Your task to perform on an android device: make emails show in primary in the gmail app Image 0: 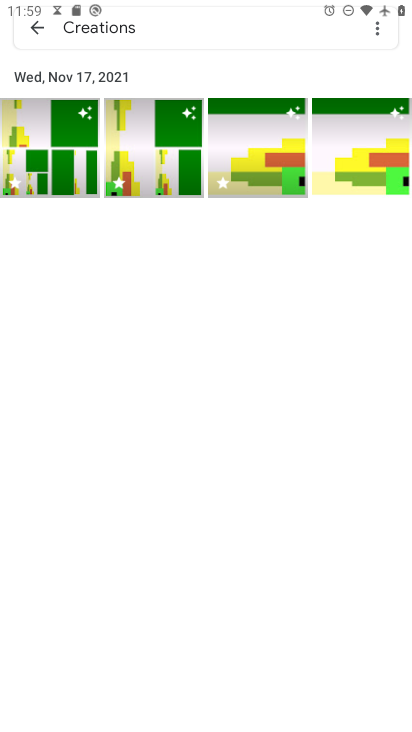
Step 0: press home button
Your task to perform on an android device: make emails show in primary in the gmail app Image 1: 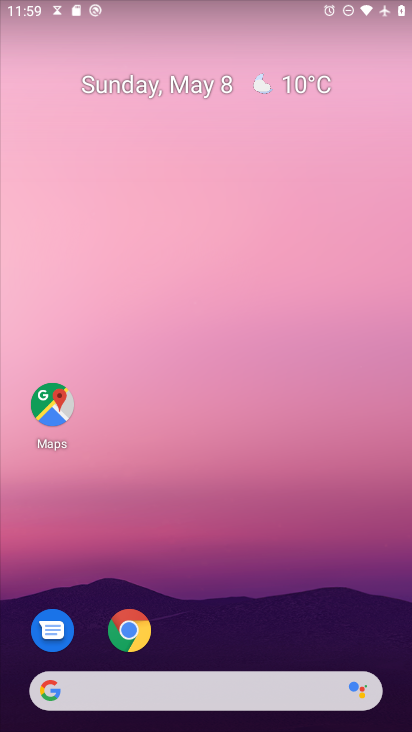
Step 1: drag from (177, 672) to (359, 66)
Your task to perform on an android device: make emails show in primary in the gmail app Image 2: 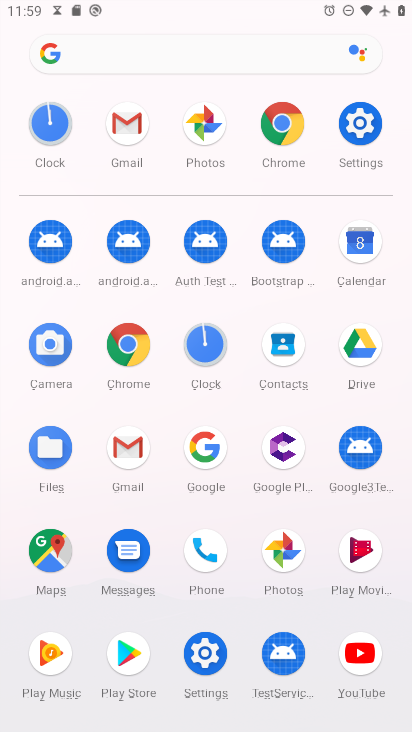
Step 2: click (121, 132)
Your task to perform on an android device: make emails show in primary in the gmail app Image 3: 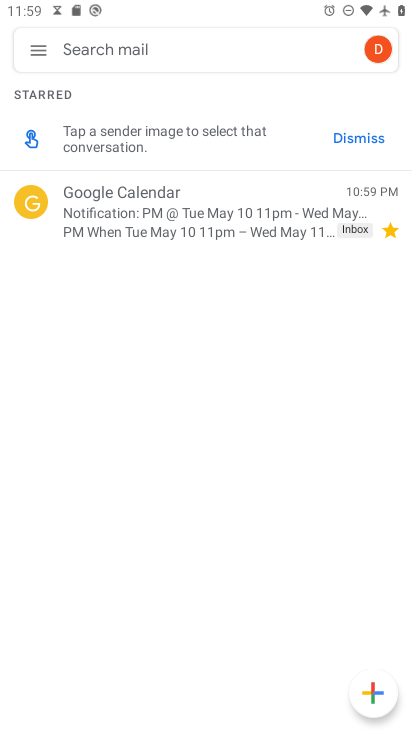
Step 3: click (42, 57)
Your task to perform on an android device: make emails show in primary in the gmail app Image 4: 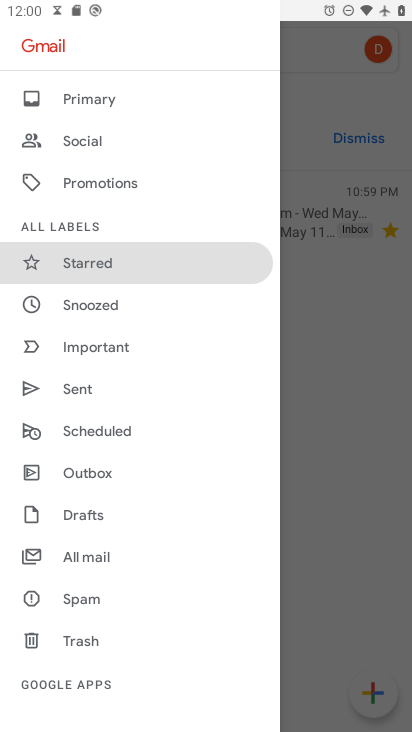
Step 4: drag from (116, 660) to (151, 311)
Your task to perform on an android device: make emails show in primary in the gmail app Image 5: 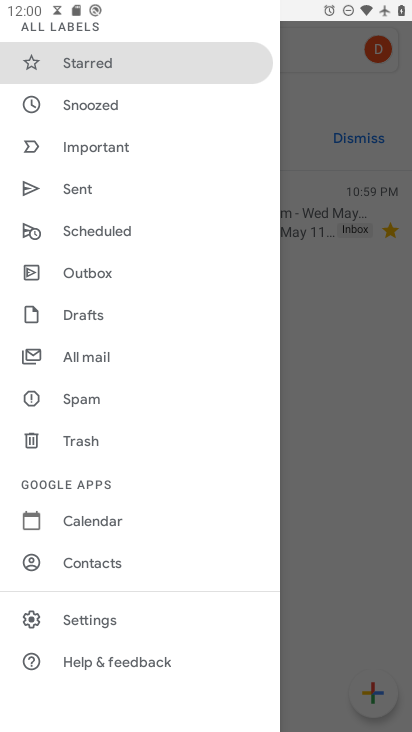
Step 5: click (109, 618)
Your task to perform on an android device: make emails show in primary in the gmail app Image 6: 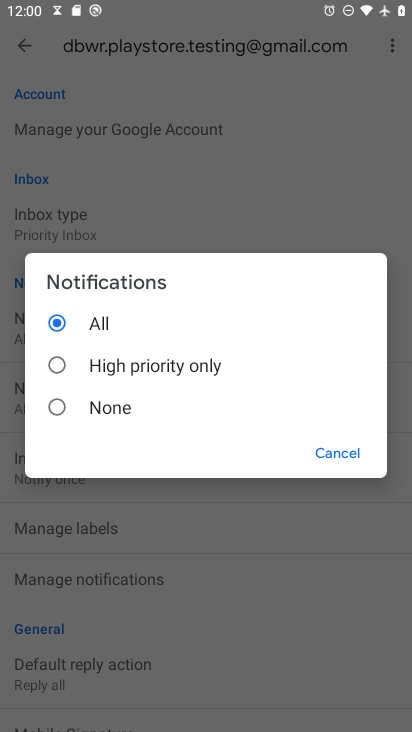
Step 6: click (326, 453)
Your task to perform on an android device: make emails show in primary in the gmail app Image 7: 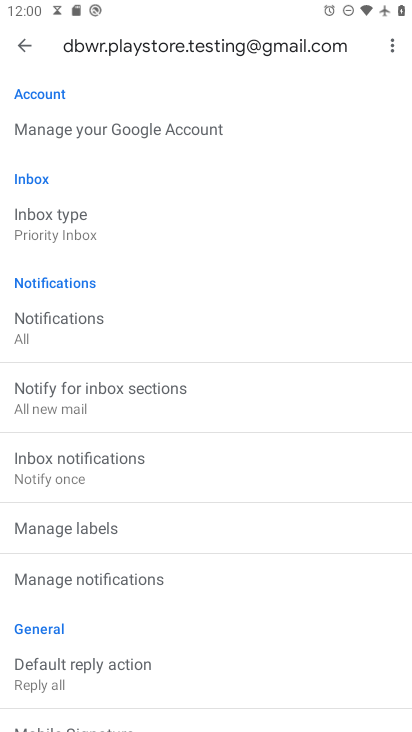
Step 7: task complete